Your task to perform on an android device: set the timer Image 0: 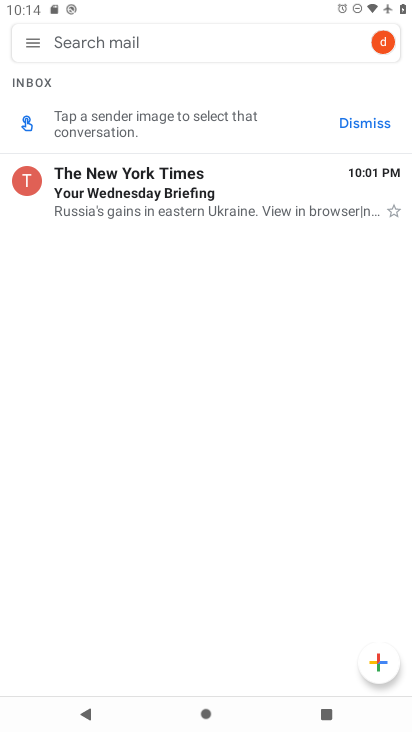
Step 0: press home button
Your task to perform on an android device: set the timer Image 1: 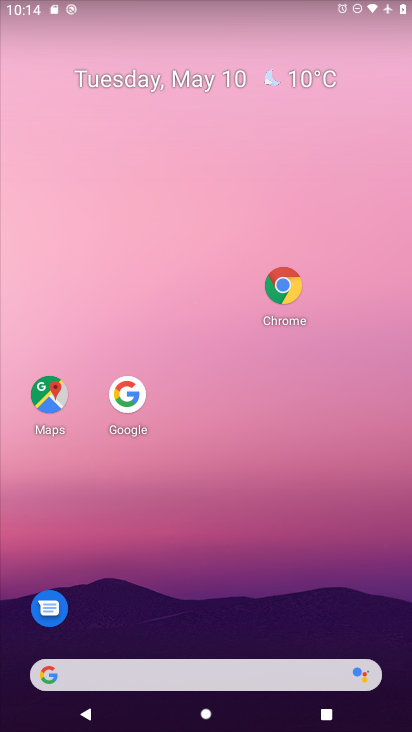
Step 1: drag from (182, 671) to (348, 135)
Your task to perform on an android device: set the timer Image 2: 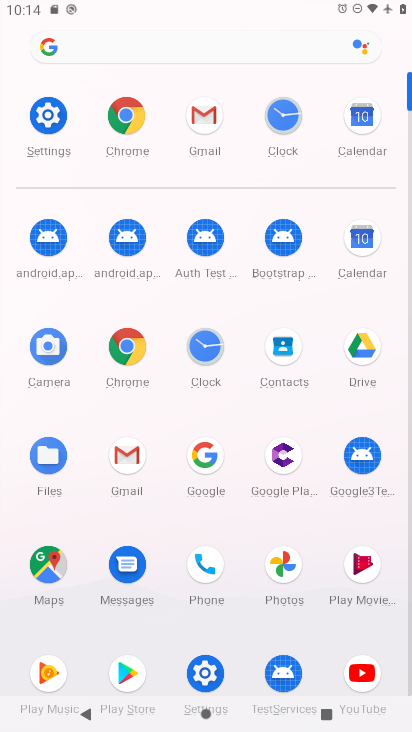
Step 2: click (203, 356)
Your task to perform on an android device: set the timer Image 3: 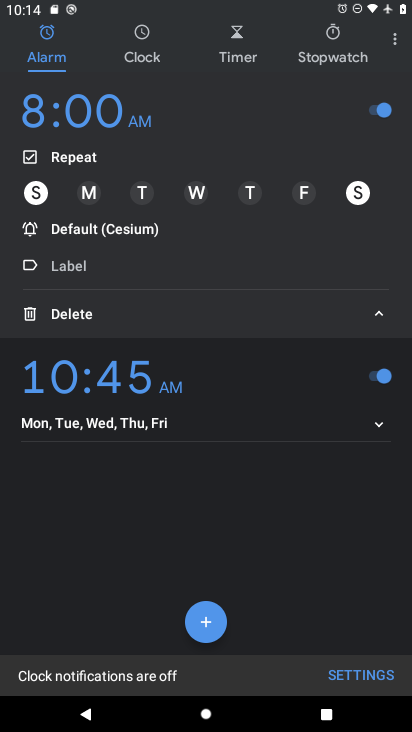
Step 3: click (237, 48)
Your task to perform on an android device: set the timer Image 4: 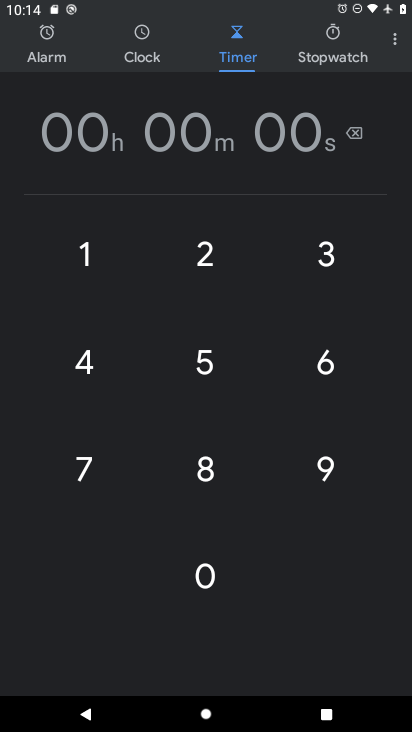
Step 4: click (209, 258)
Your task to perform on an android device: set the timer Image 5: 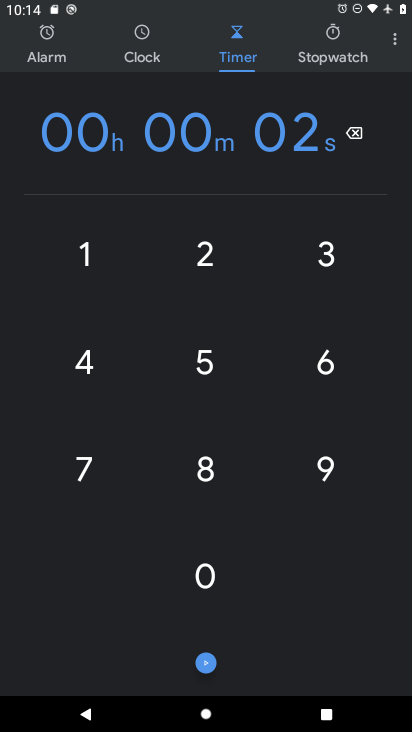
Step 5: click (211, 357)
Your task to perform on an android device: set the timer Image 6: 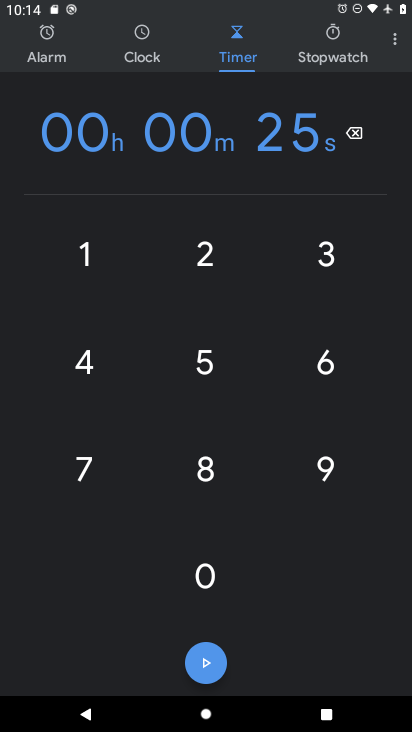
Step 6: click (211, 660)
Your task to perform on an android device: set the timer Image 7: 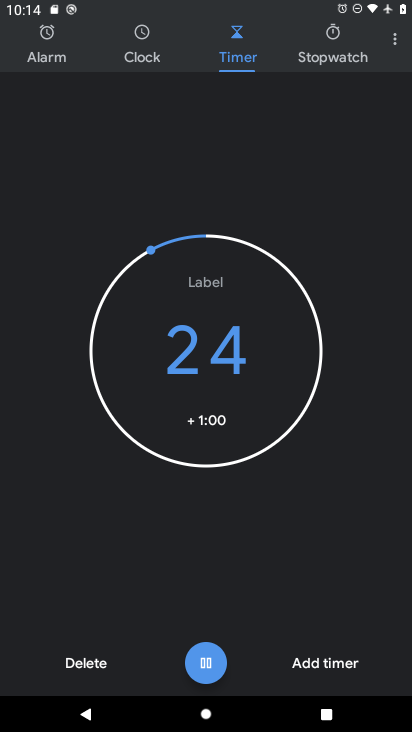
Step 7: click (203, 662)
Your task to perform on an android device: set the timer Image 8: 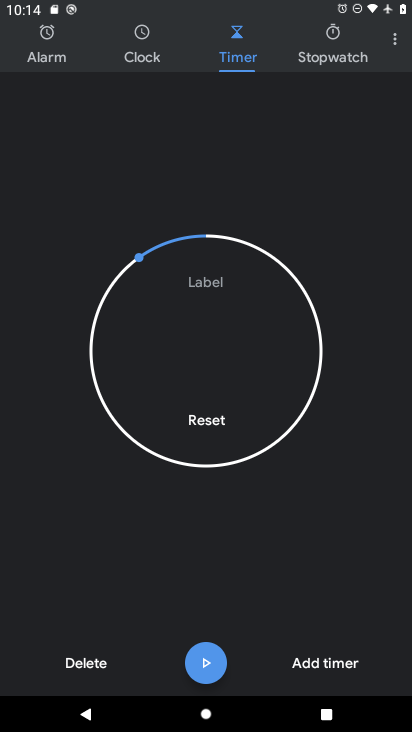
Step 8: task complete